Your task to perform on an android device: Go to Reddit.com Image 0: 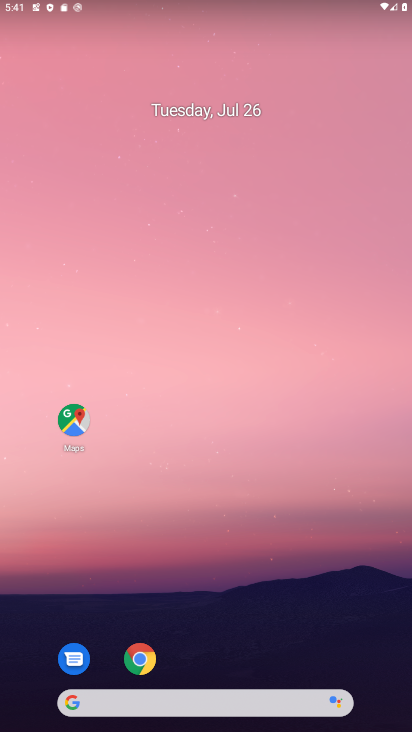
Step 0: click (267, 703)
Your task to perform on an android device: Go to Reddit.com Image 1: 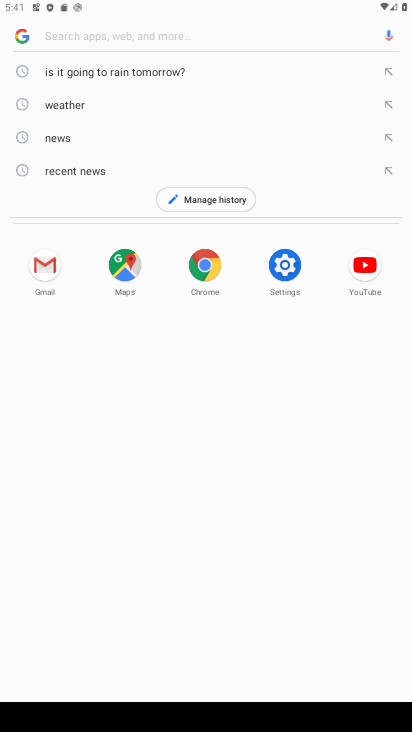
Step 1: type "Reddit.com"
Your task to perform on an android device: Go to Reddit.com Image 2: 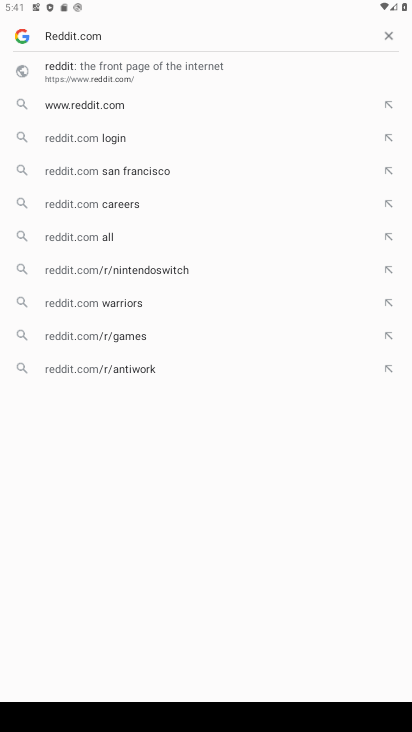
Step 2: press enter
Your task to perform on an android device: Go to Reddit.com Image 3: 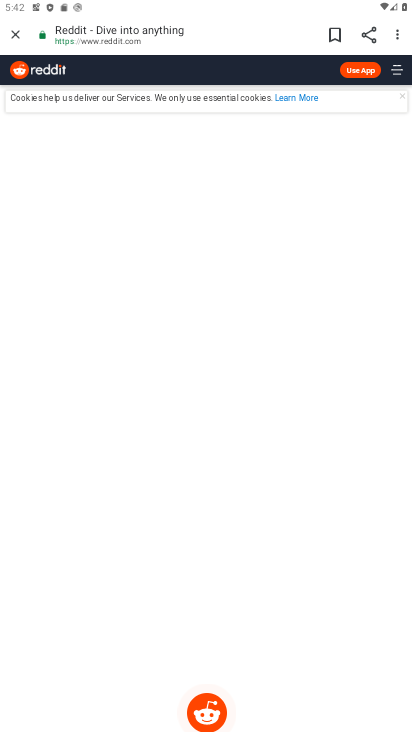
Step 3: task complete